Your task to perform on an android device: open a new tab in the chrome app Image 0: 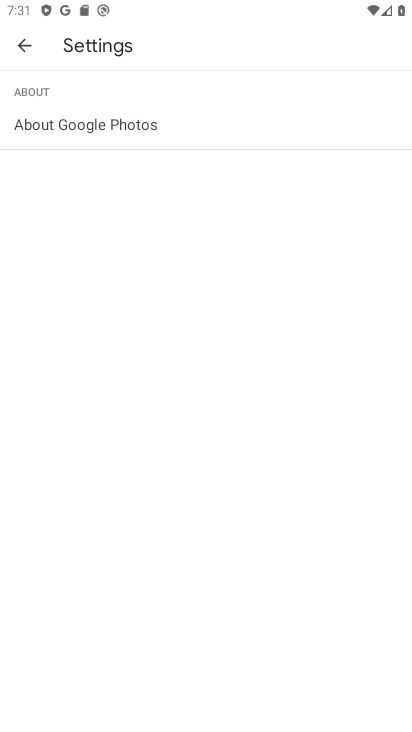
Step 0: press home button
Your task to perform on an android device: open a new tab in the chrome app Image 1: 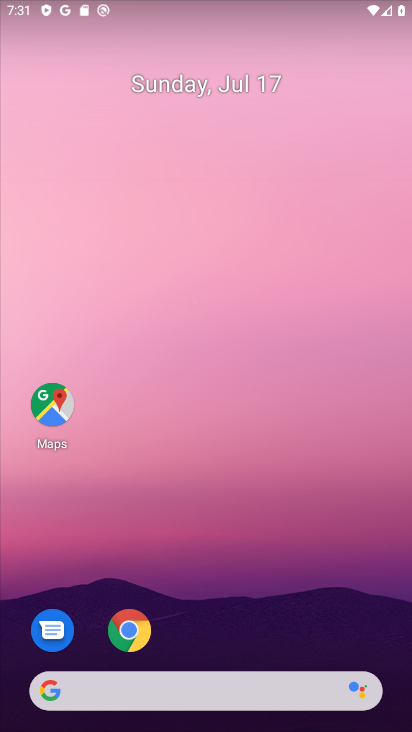
Step 1: click (128, 633)
Your task to perform on an android device: open a new tab in the chrome app Image 2: 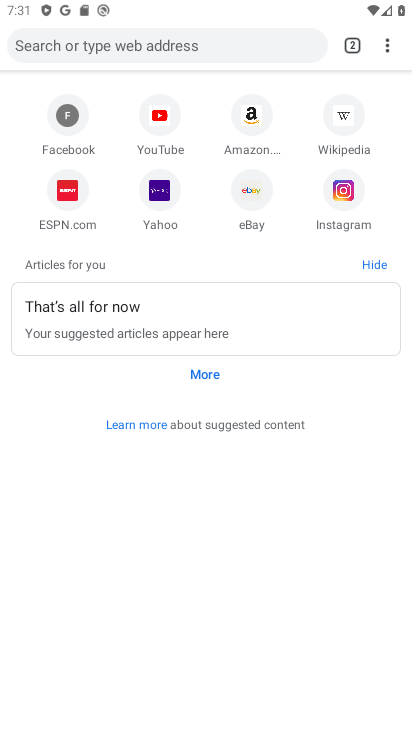
Step 2: click (346, 42)
Your task to perform on an android device: open a new tab in the chrome app Image 3: 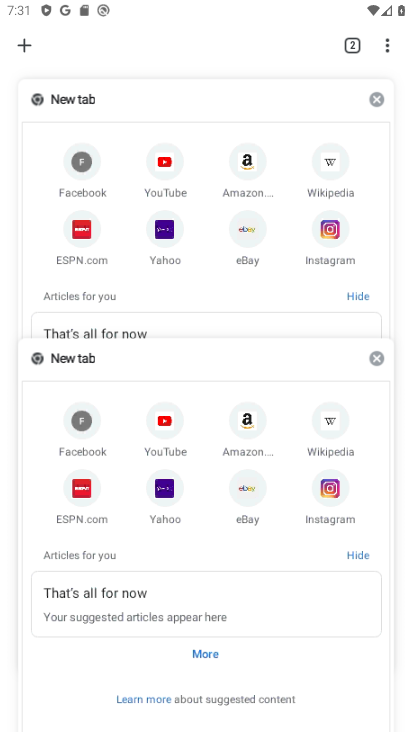
Step 3: click (25, 44)
Your task to perform on an android device: open a new tab in the chrome app Image 4: 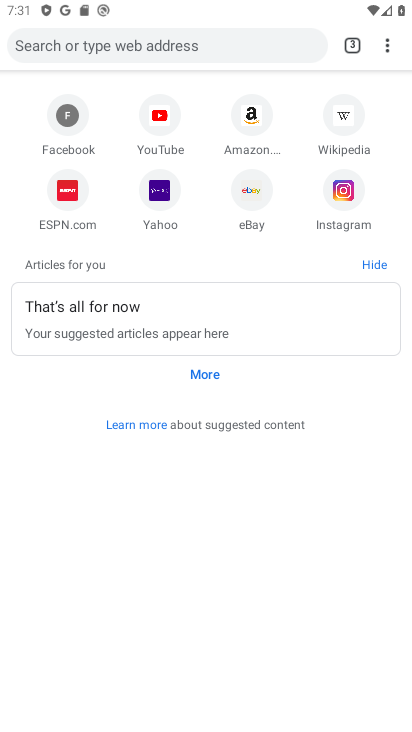
Step 4: task complete